Your task to perform on an android device: turn pop-ups on in chrome Image 0: 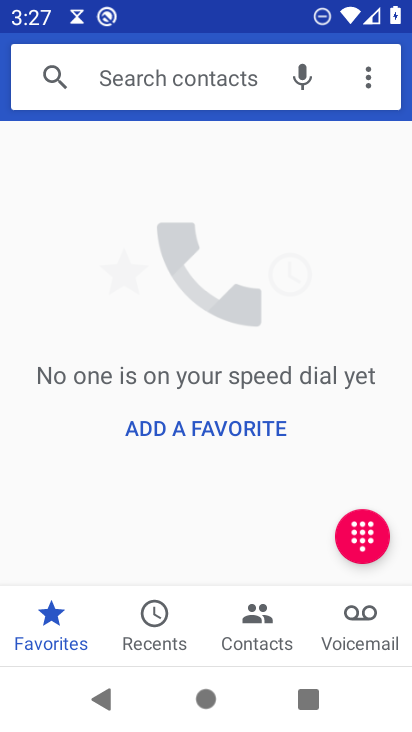
Step 0: press home button
Your task to perform on an android device: turn pop-ups on in chrome Image 1: 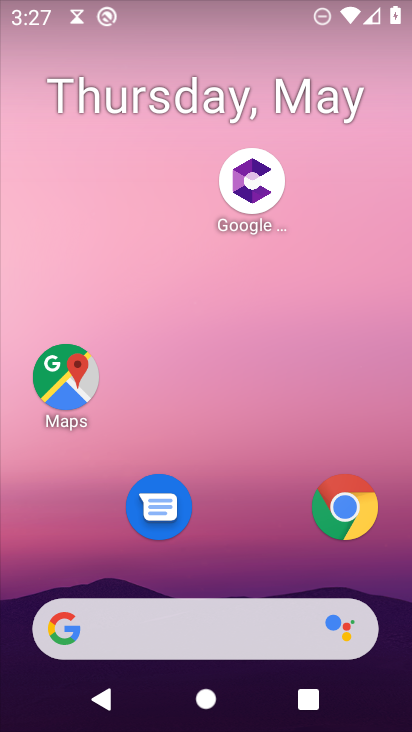
Step 1: click (340, 499)
Your task to perform on an android device: turn pop-ups on in chrome Image 2: 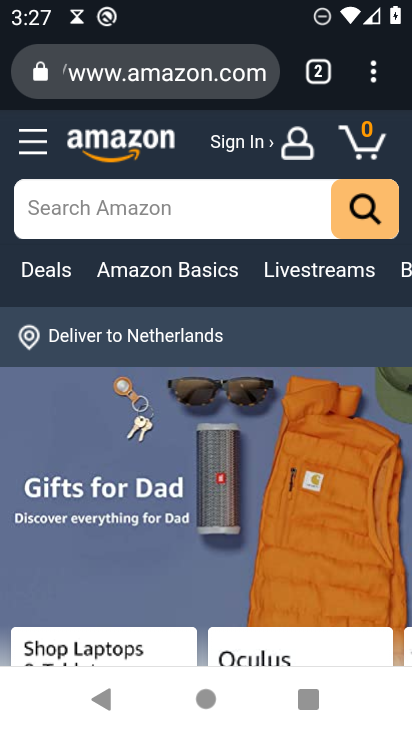
Step 2: drag from (381, 85) to (245, 507)
Your task to perform on an android device: turn pop-ups on in chrome Image 3: 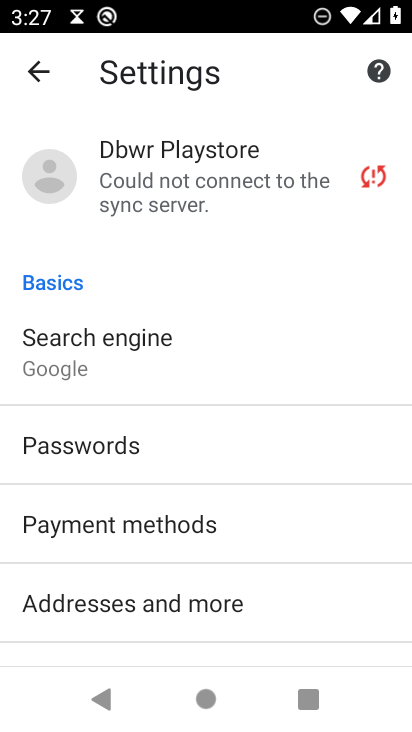
Step 3: drag from (281, 591) to (175, 150)
Your task to perform on an android device: turn pop-ups on in chrome Image 4: 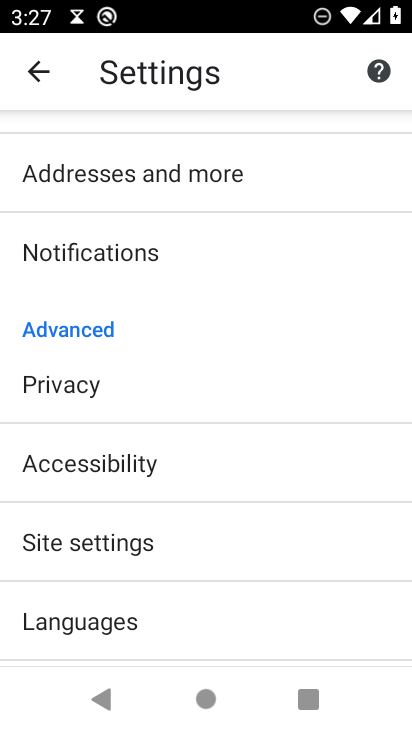
Step 4: click (99, 537)
Your task to perform on an android device: turn pop-ups on in chrome Image 5: 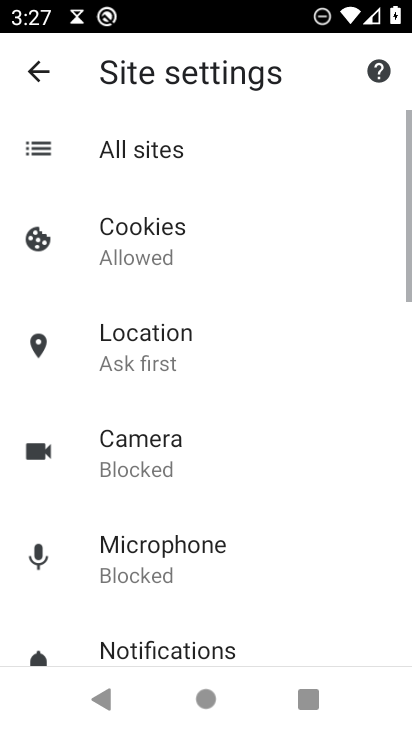
Step 5: drag from (254, 547) to (173, 147)
Your task to perform on an android device: turn pop-ups on in chrome Image 6: 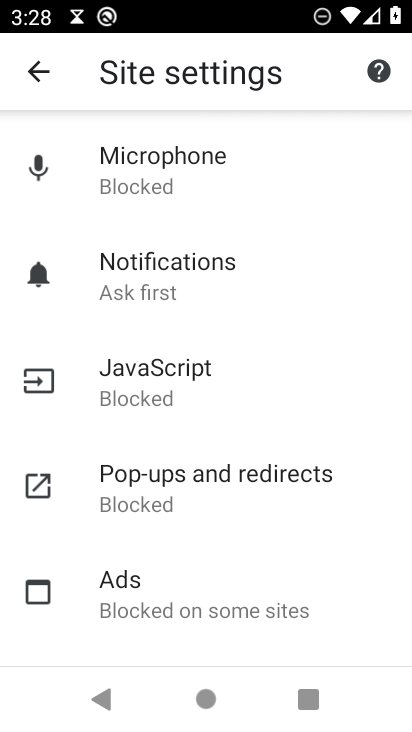
Step 6: click (208, 485)
Your task to perform on an android device: turn pop-ups on in chrome Image 7: 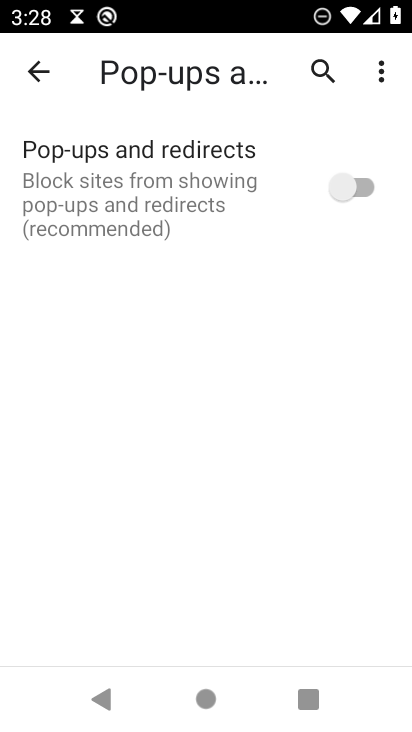
Step 7: click (339, 192)
Your task to perform on an android device: turn pop-ups on in chrome Image 8: 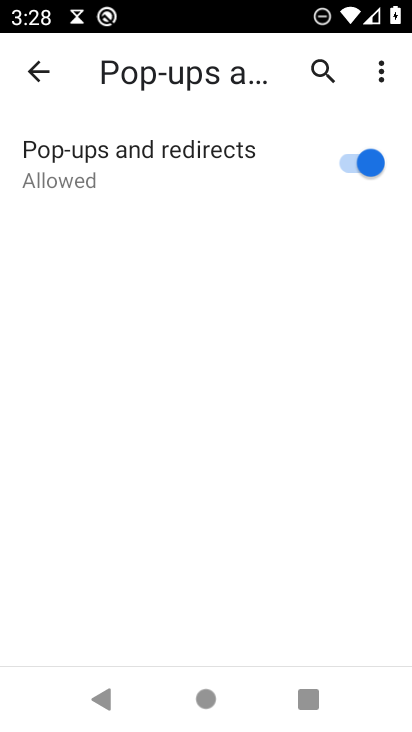
Step 8: task complete